Your task to perform on an android device: Play the last video I watched on Youtube Image 0: 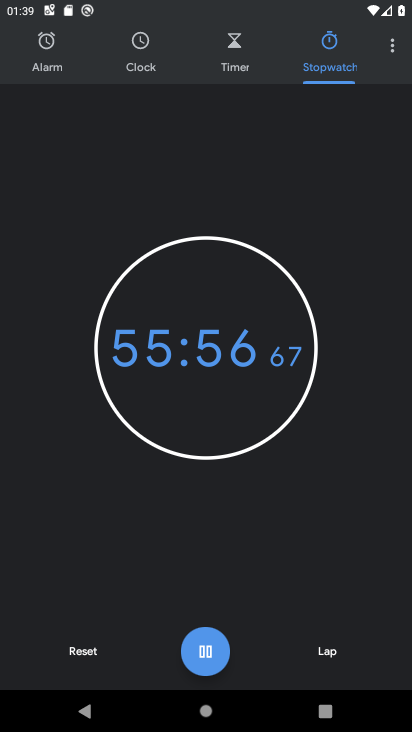
Step 0: drag from (239, 665) to (325, 38)
Your task to perform on an android device: Play the last video I watched on Youtube Image 1: 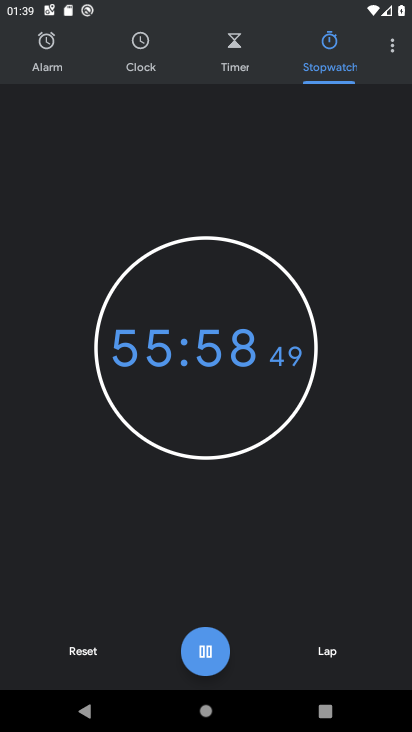
Step 1: press home button
Your task to perform on an android device: Play the last video I watched on Youtube Image 2: 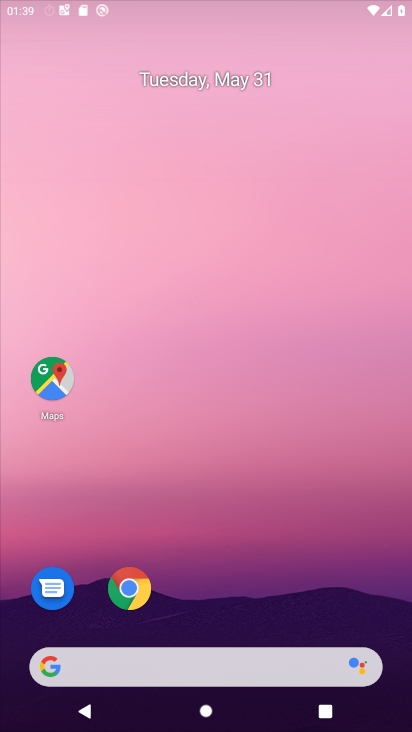
Step 2: drag from (234, 661) to (303, 64)
Your task to perform on an android device: Play the last video I watched on Youtube Image 3: 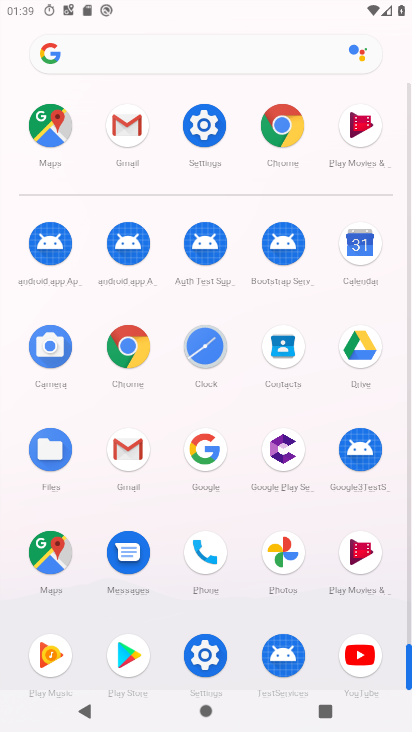
Step 3: click (366, 659)
Your task to perform on an android device: Play the last video I watched on Youtube Image 4: 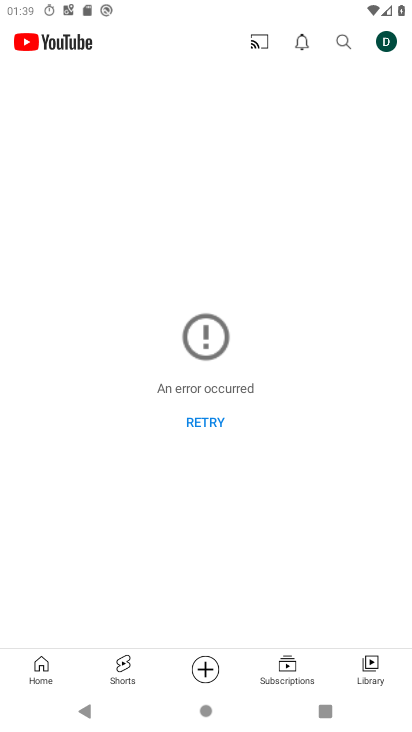
Step 4: click (367, 679)
Your task to perform on an android device: Play the last video I watched on Youtube Image 5: 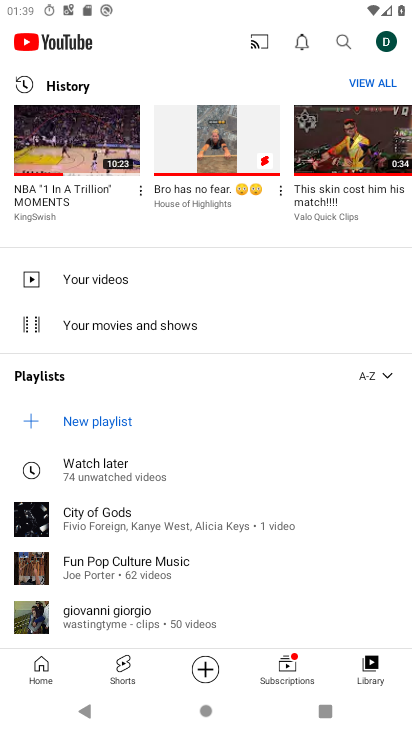
Step 5: click (40, 121)
Your task to perform on an android device: Play the last video I watched on Youtube Image 6: 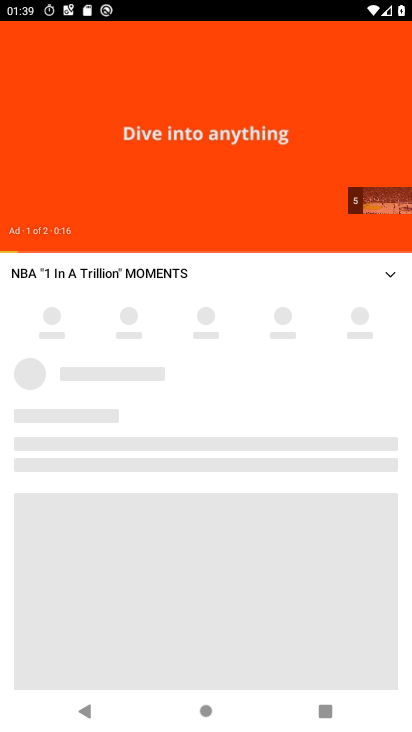
Step 6: task complete